Your task to perform on an android device: Open Google Chrome and open the bookmarks view Image 0: 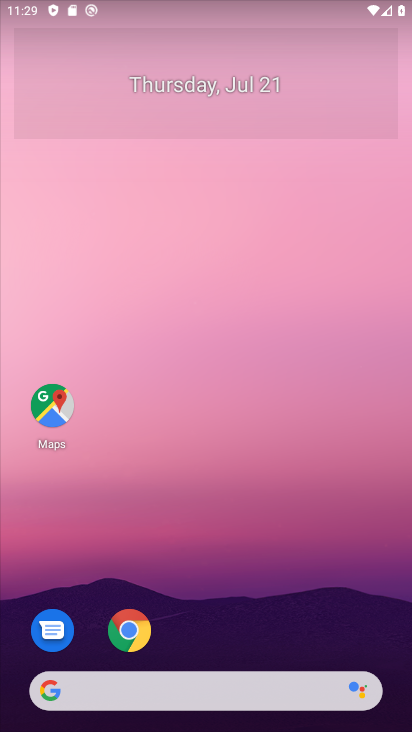
Step 0: press home button
Your task to perform on an android device: Open Google Chrome and open the bookmarks view Image 1: 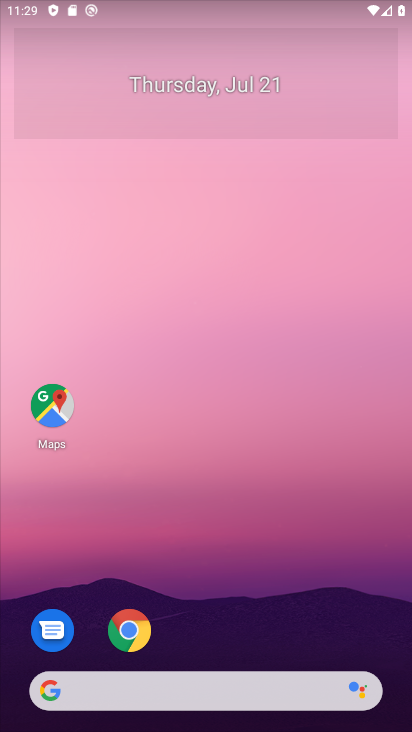
Step 1: click (127, 630)
Your task to perform on an android device: Open Google Chrome and open the bookmarks view Image 2: 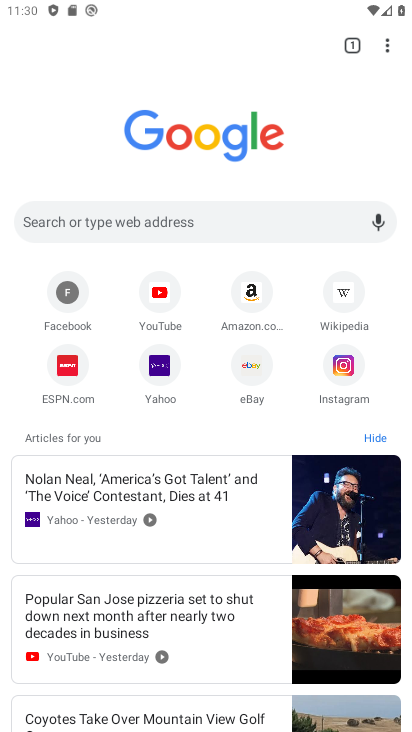
Step 2: click (387, 46)
Your task to perform on an android device: Open Google Chrome and open the bookmarks view Image 3: 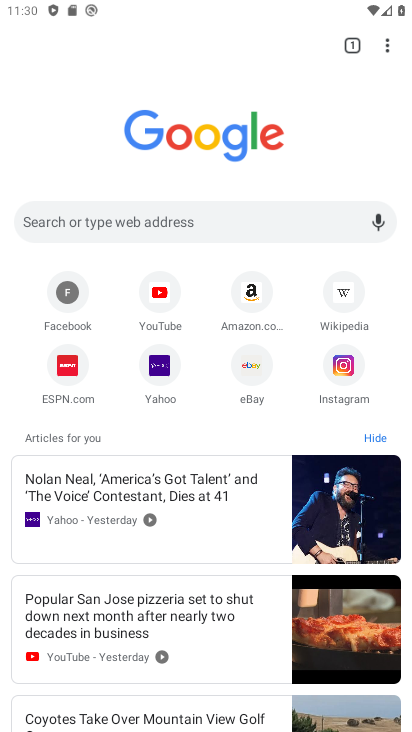
Step 3: task complete